Your task to perform on an android device: search for starred emails in the gmail app Image 0: 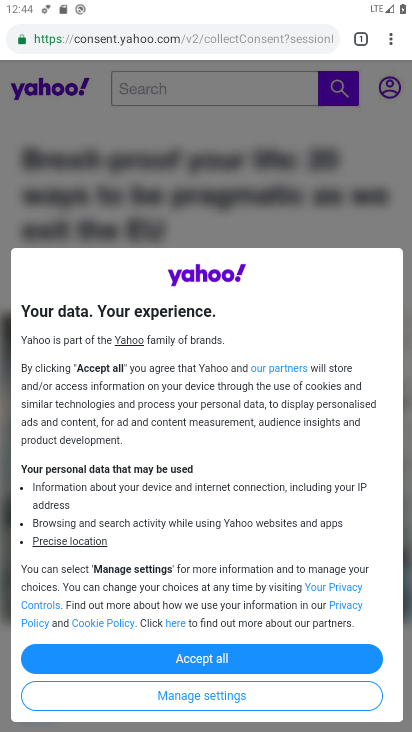
Step 0: press home button
Your task to perform on an android device: search for starred emails in the gmail app Image 1: 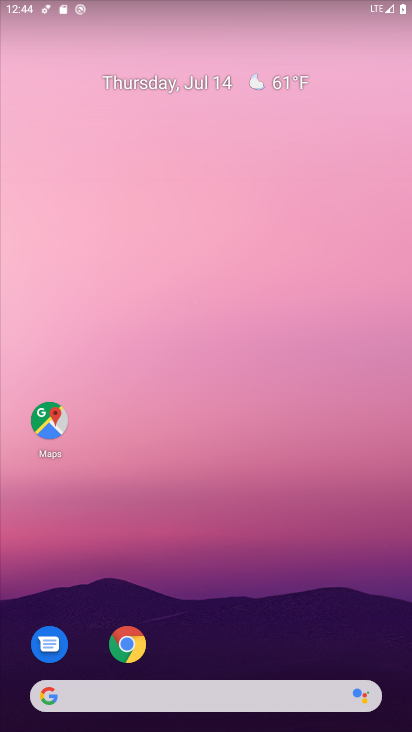
Step 1: drag from (278, 557) to (339, 301)
Your task to perform on an android device: search for starred emails in the gmail app Image 2: 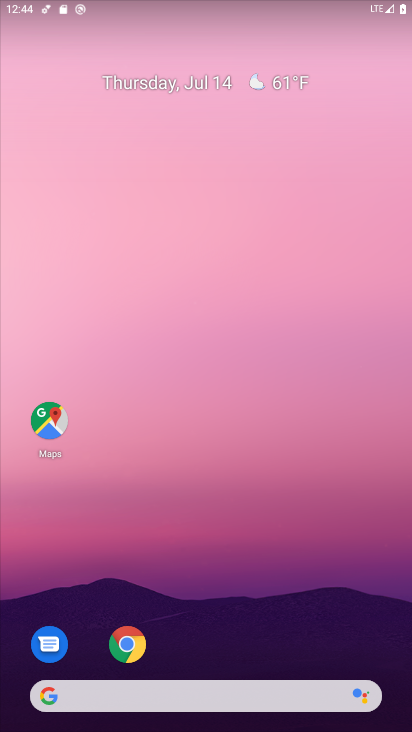
Step 2: drag from (268, 583) to (244, 43)
Your task to perform on an android device: search for starred emails in the gmail app Image 3: 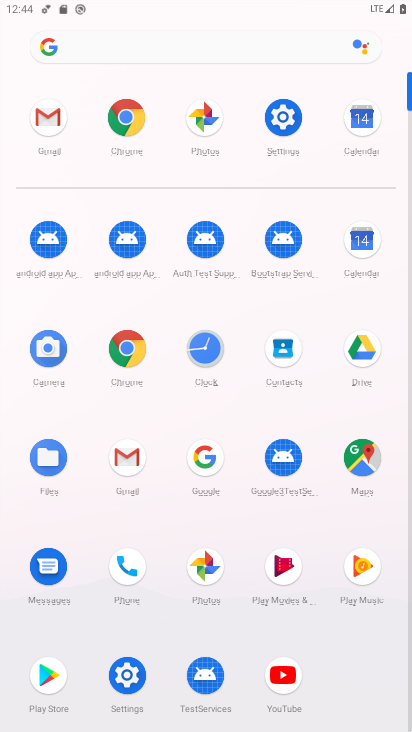
Step 3: click (41, 128)
Your task to perform on an android device: search for starred emails in the gmail app Image 4: 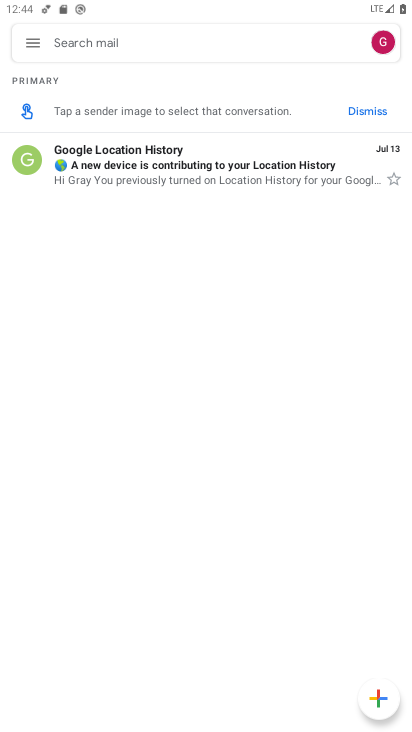
Step 4: click (39, 49)
Your task to perform on an android device: search for starred emails in the gmail app Image 5: 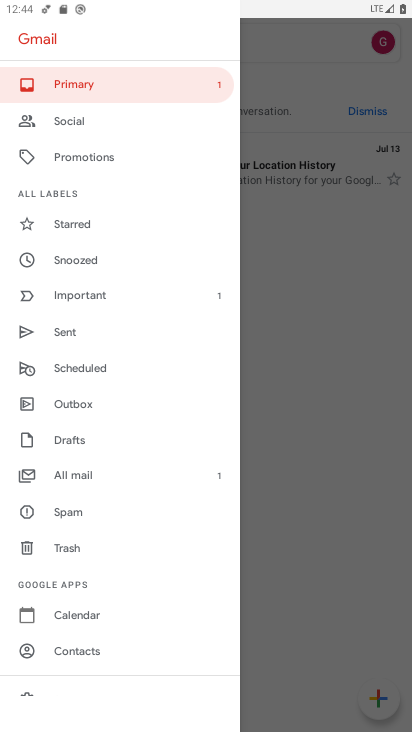
Step 5: click (96, 221)
Your task to perform on an android device: search for starred emails in the gmail app Image 6: 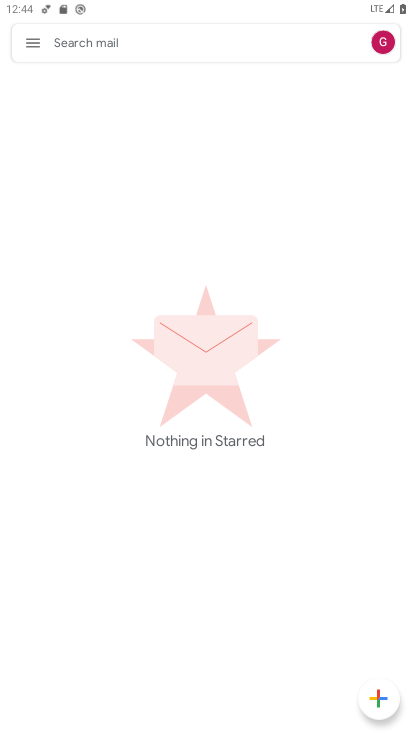
Step 6: task complete